Your task to perform on an android device: Open privacy settings Image 0: 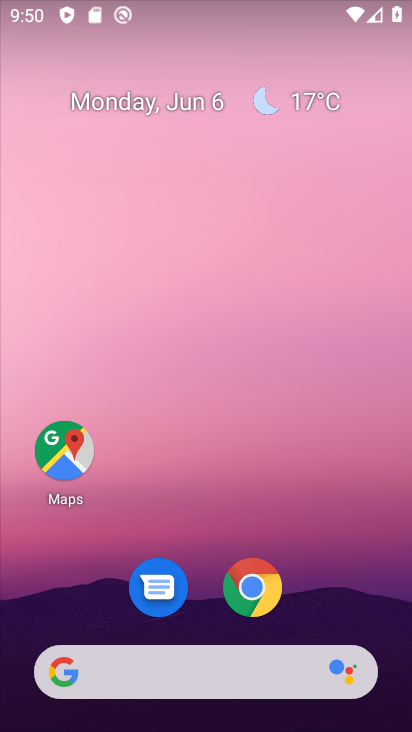
Step 0: drag from (334, 605) to (266, 191)
Your task to perform on an android device: Open privacy settings Image 1: 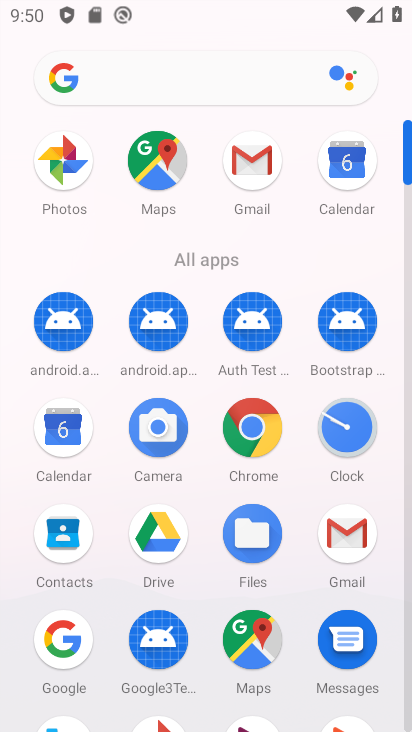
Step 1: click (407, 718)
Your task to perform on an android device: Open privacy settings Image 2: 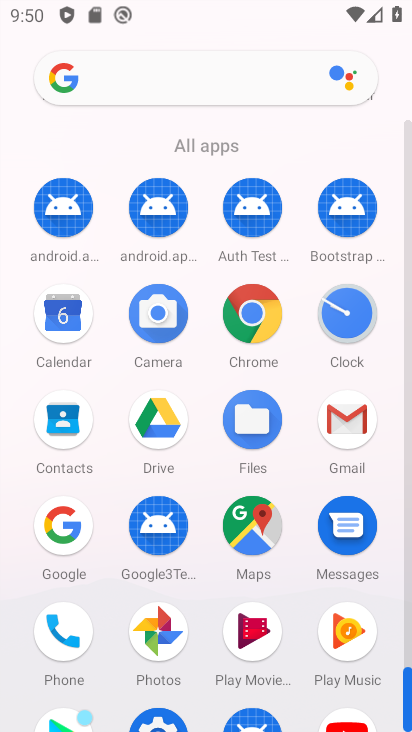
Step 2: click (159, 722)
Your task to perform on an android device: Open privacy settings Image 3: 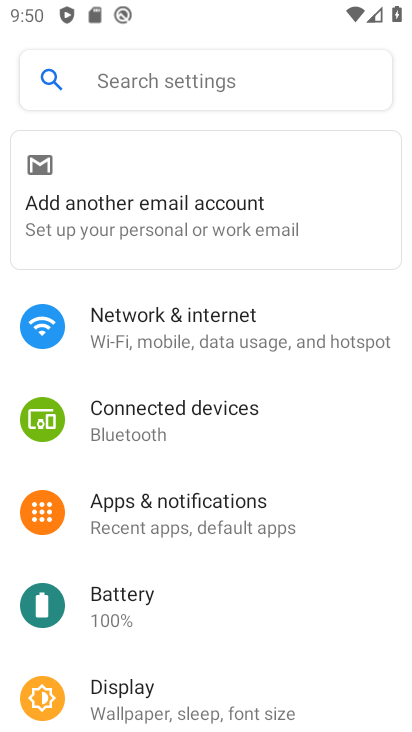
Step 3: drag from (207, 679) to (142, 250)
Your task to perform on an android device: Open privacy settings Image 4: 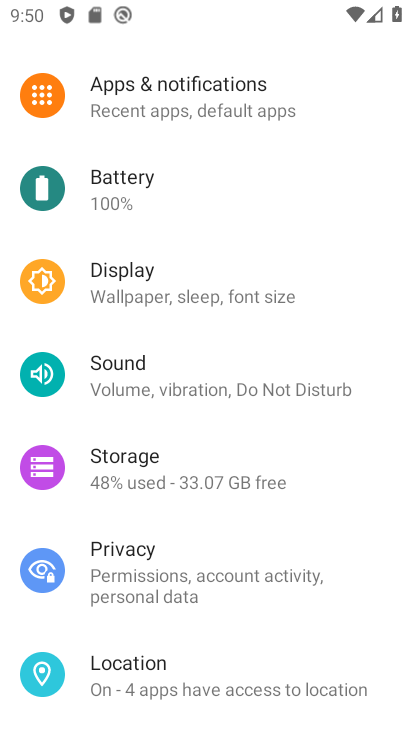
Step 4: click (219, 594)
Your task to perform on an android device: Open privacy settings Image 5: 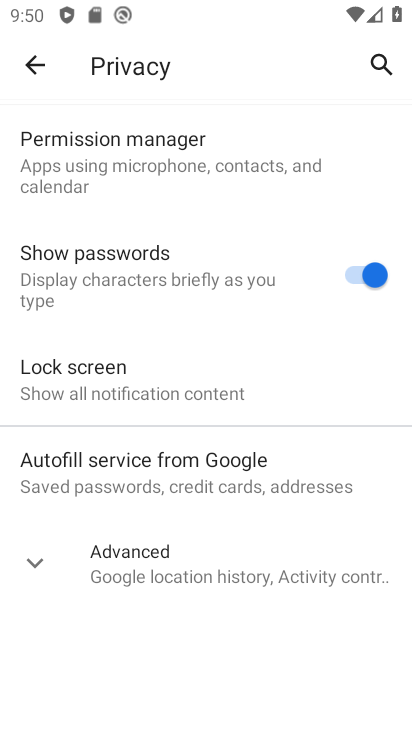
Step 5: task complete